Your task to perform on an android device: Open Youtube and go to "Your channel" Image 0: 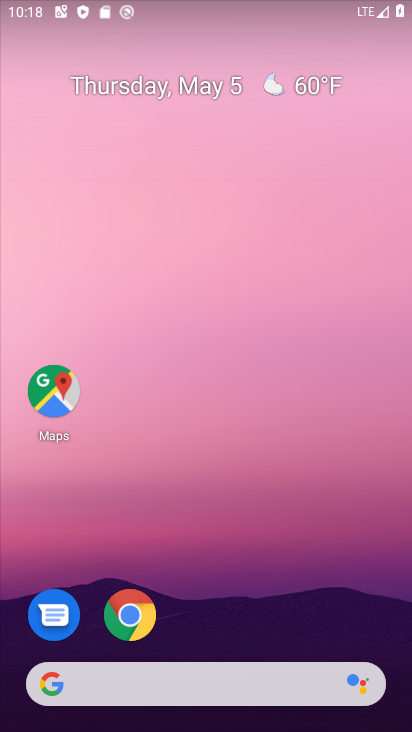
Step 0: drag from (202, 611) to (277, 109)
Your task to perform on an android device: Open Youtube and go to "Your channel" Image 1: 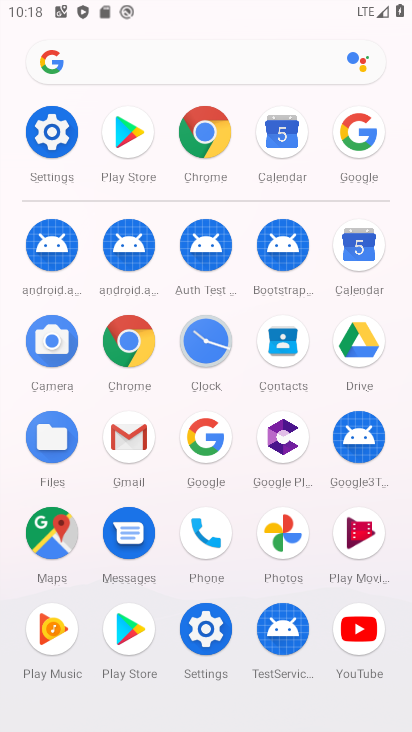
Step 1: drag from (168, 634) to (237, 179)
Your task to perform on an android device: Open Youtube and go to "Your channel" Image 2: 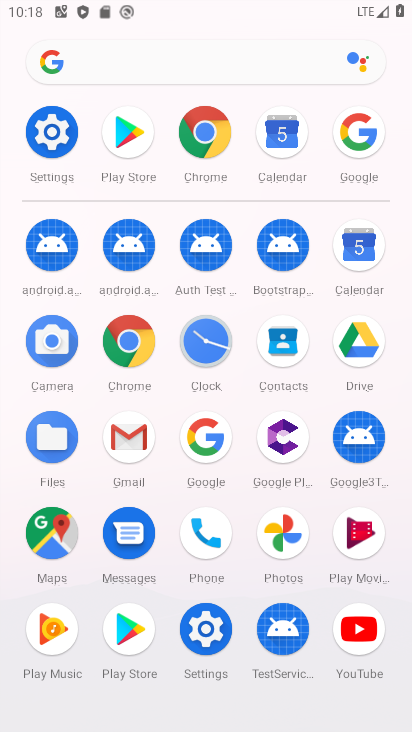
Step 2: click (353, 602)
Your task to perform on an android device: Open Youtube and go to "Your channel" Image 3: 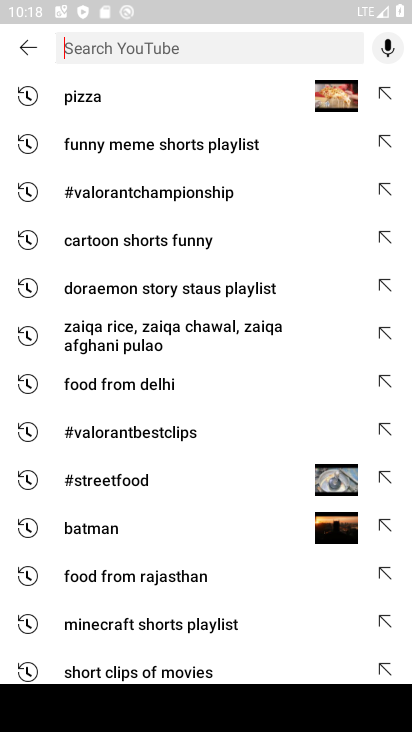
Step 3: press back button
Your task to perform on an android device: Open Youtube and go to "Your channel" Image 4: 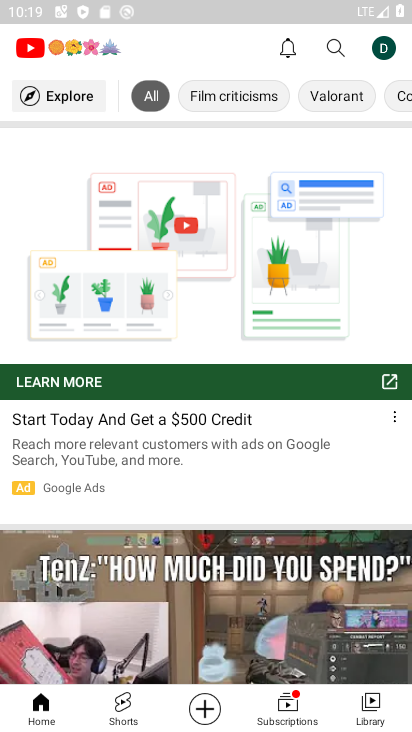
Step 4: click (380, 46)
Your task to perform on an android device: Open Youtube and go to "Your channel" Image 5: 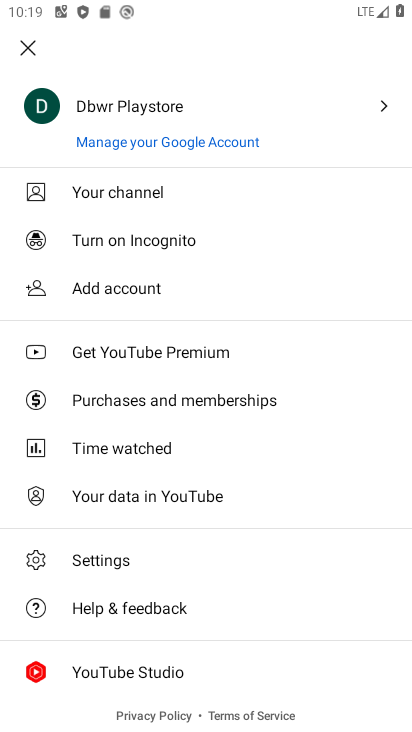
Step 5: click (198, 184)
Your task to perform on an android device: Open Youtube and go to "Your channel" Image 6: 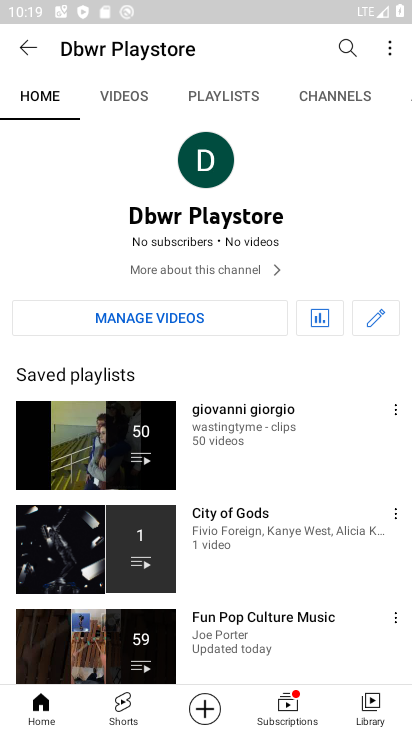
Step 6: task complete